Your task to perform on an android device: make emails show in primary in the gmail app Image 0: 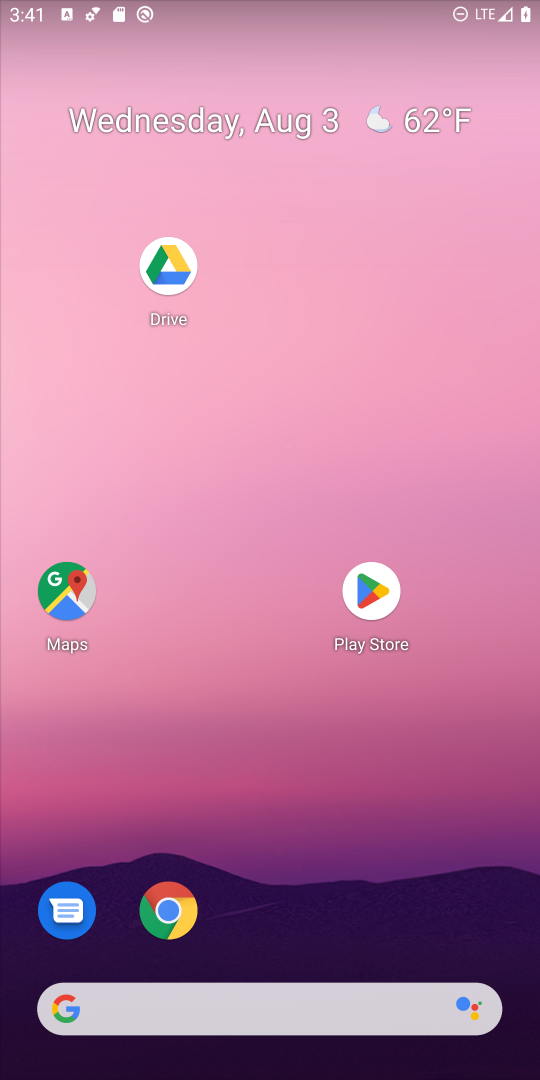
Step 0: drag from (334, 1032) to (534, 867)
Your task to perform on an android device: make emails show in primary in the gmail app Image 1: 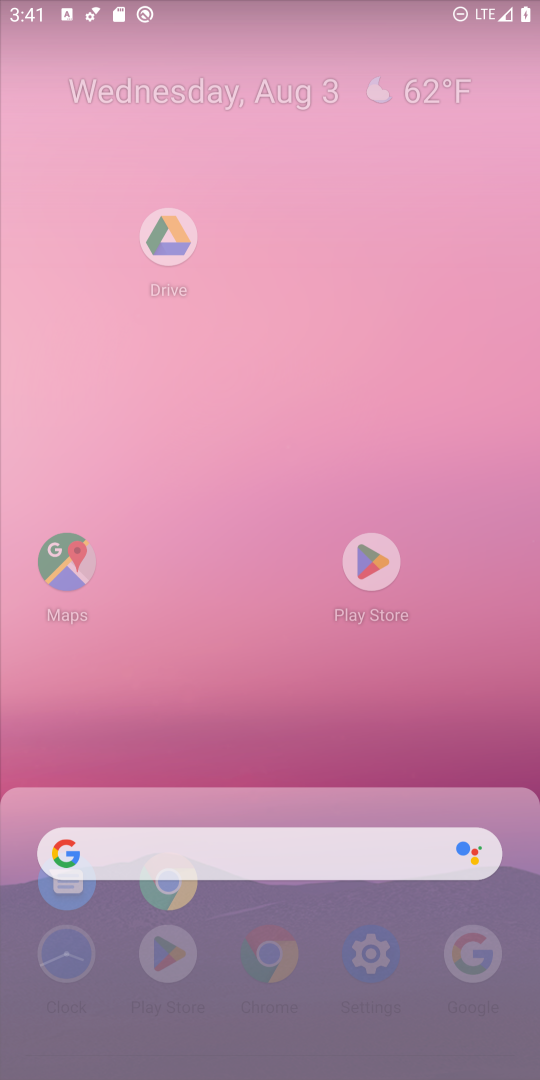
Step 1: click (188, 664)
Your task to perform on an android device: make emails show in primary in the gmail app Image 2: 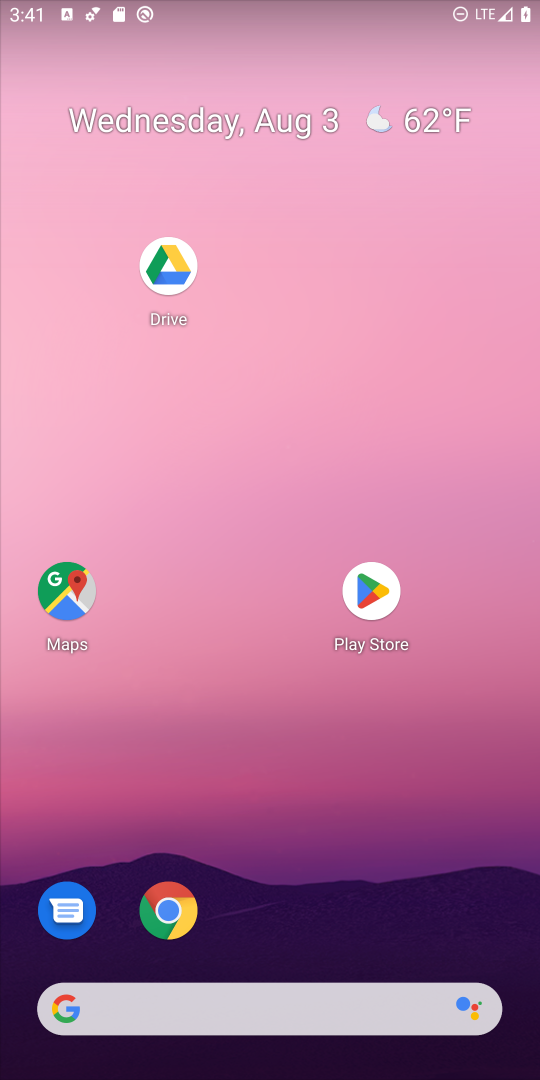
Step 2: drag from (336, 1017) to (364, 84)
Your task to perform on an android device: make emails show in primary in the gmail app Image 3: 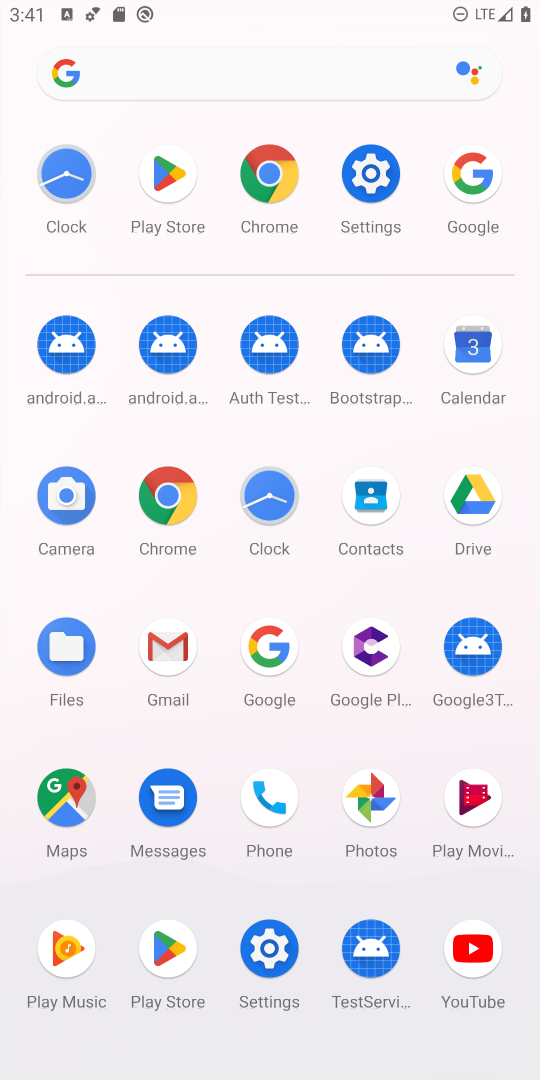
Step 3: click (168, 641)
Your task to perform on an android device: make emails show in primary in the gmail app Image 4: 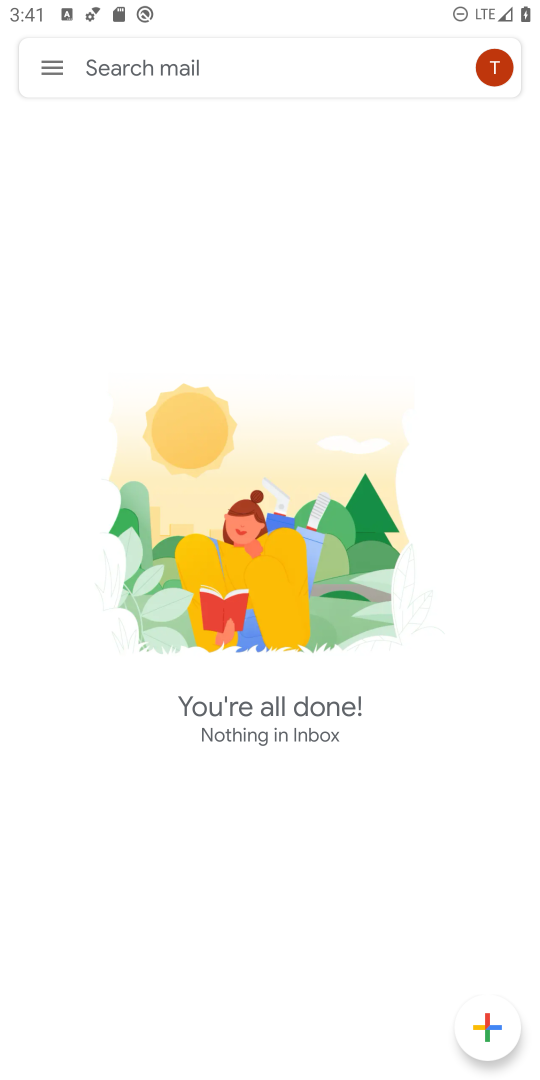
Step 4: click (54, 47)
Your task to perform on an android device: make emails show in primary in the gmail app Image 5: 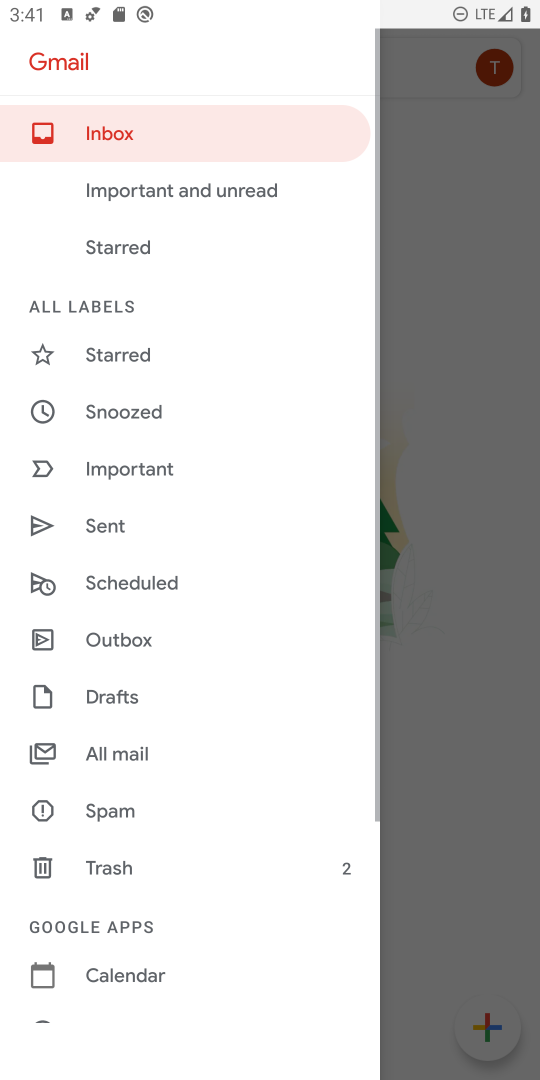
Step 5: drag from (164, 335) to (180, 730)
Your task to perform on an android device: make emails show in primary in the gmail app Image 6: 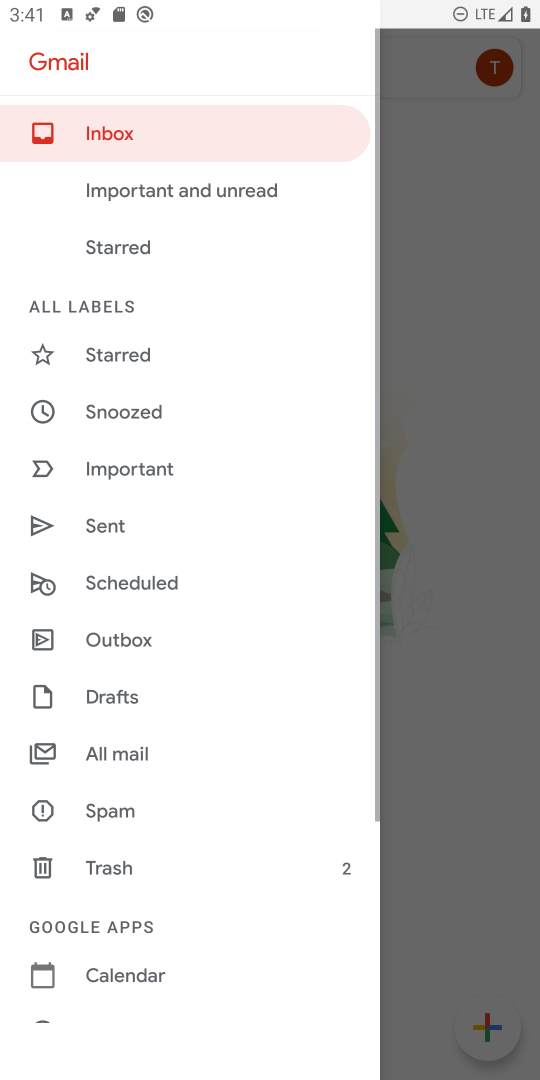
Step 6: drag from (206, 866) to (187, 23)
Your task to perform on an android device: make emails show in primary in the gmail app Image 7: 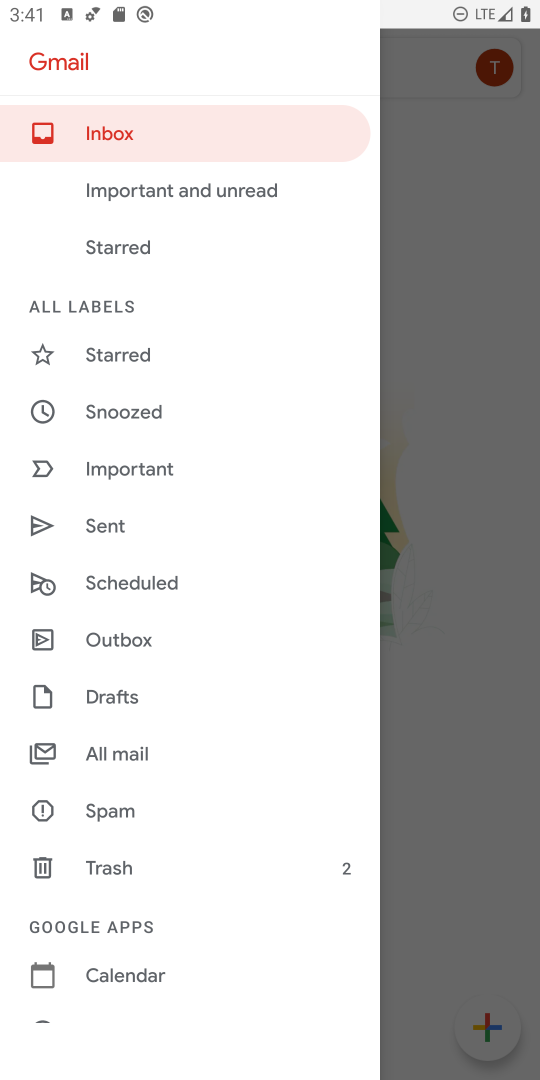
Step 7: drag from (119, 845) to (99, 20)
Your task to perform on an android device: make emails show in primary in the gmail app Image 8: 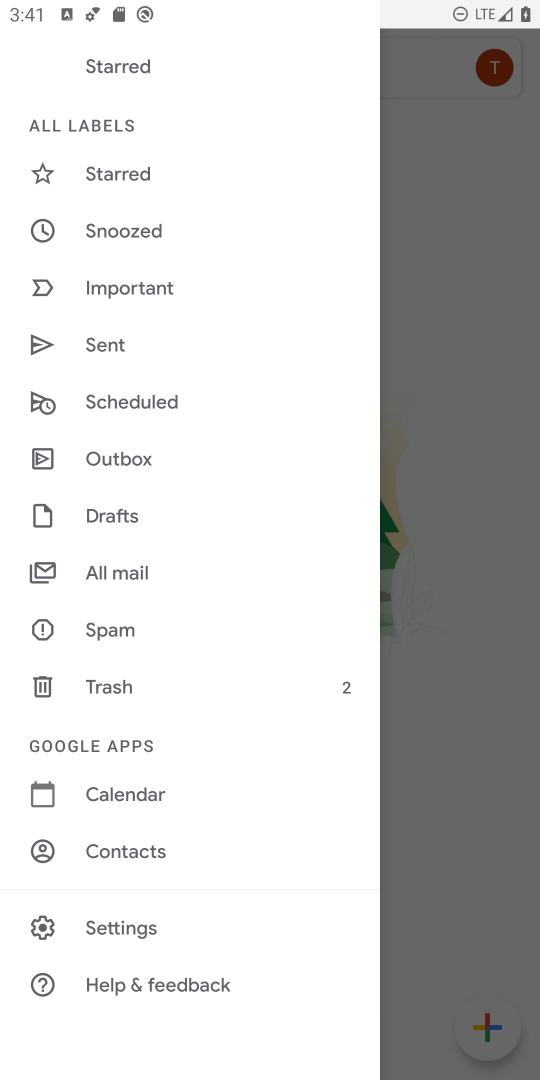
Step 8: click (169, 915)
Your task to perform on an android device: make emails show in primary in the gmail app Image 9: 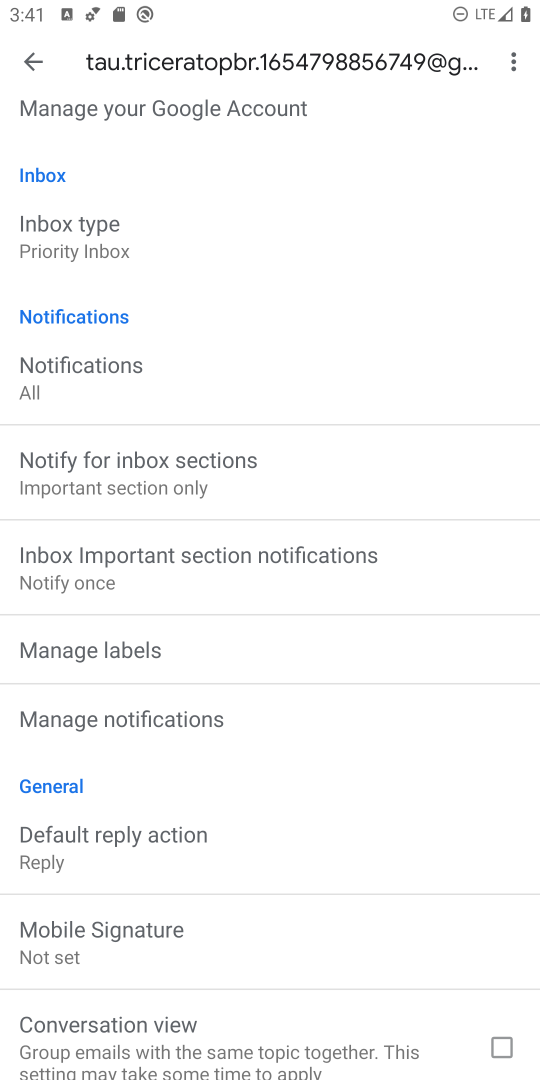
Step 9: click (133, 242)
Your task to perform on an android device: make emails show in primary in the gmail app Image 10: 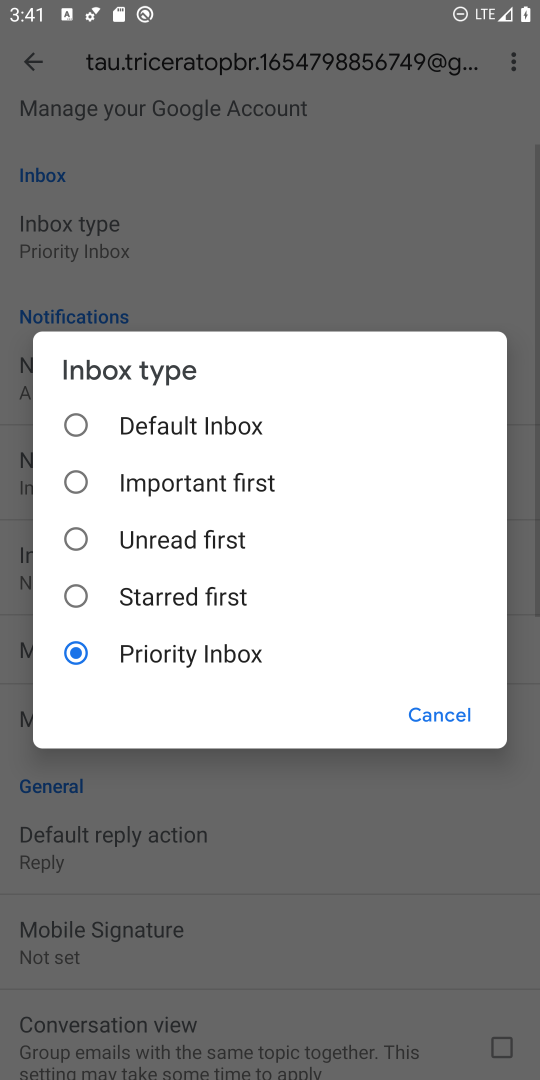
Step 10: click (91, 425)
Your task to perform on an android device: make emails show in primary in the gmail app Image 11: 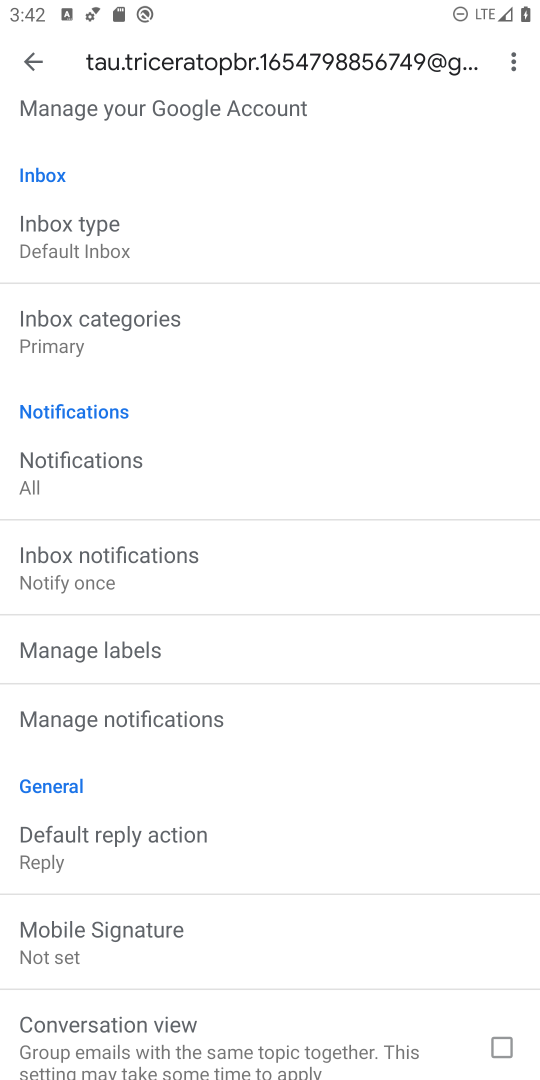
Step 11: press back button
Your task to perform on an android device: make emails show in primary in the gmail app Image 12: 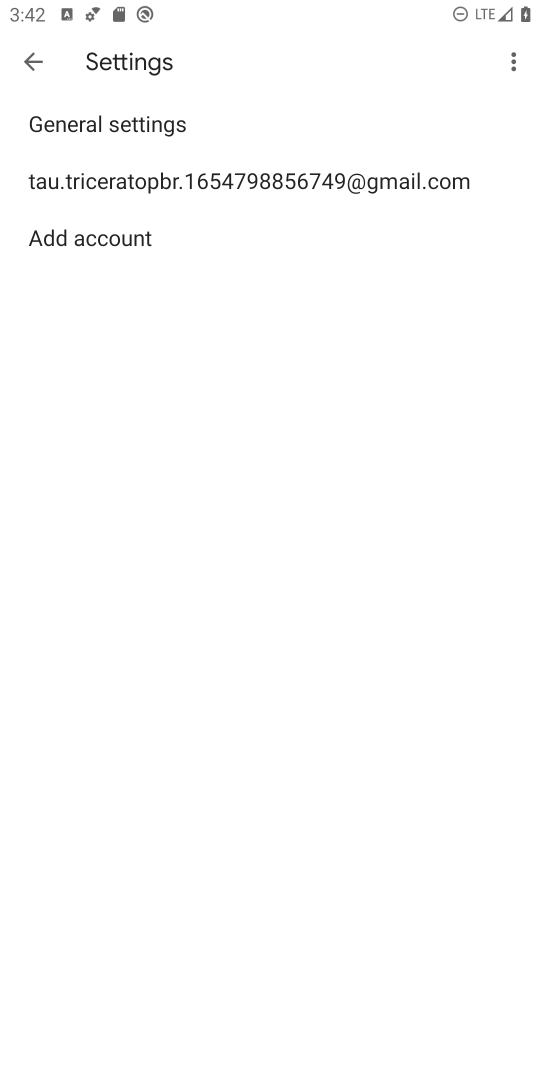
Step 12: press back button
Your task to perform on an android device: make emails show in primary in the gmail app Image 13: 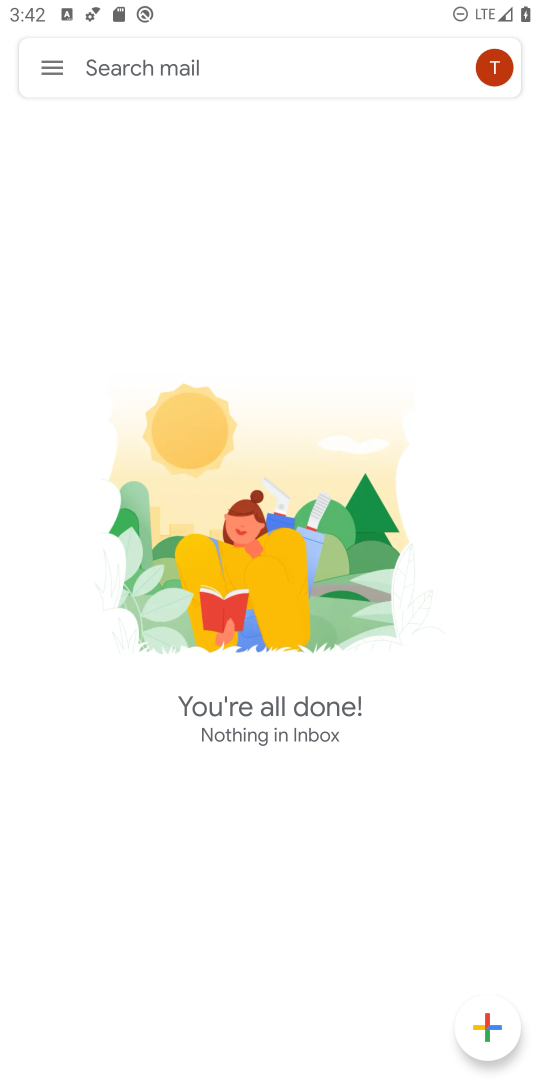
Step 13: click (59, 60)
Your task to perform on an android device: make emails show in primary in the gmail app Image 14: 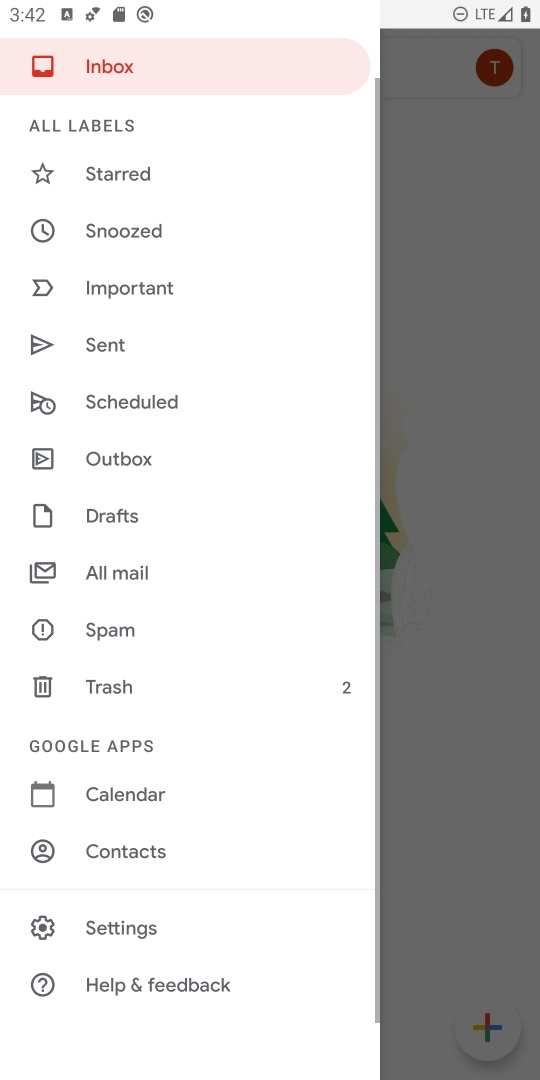
Step 14: task complete